Your task to perform on an android device: Search for "asus rog" on target.com, select the first entry, add it to the cart, then select checkout. Image 0: 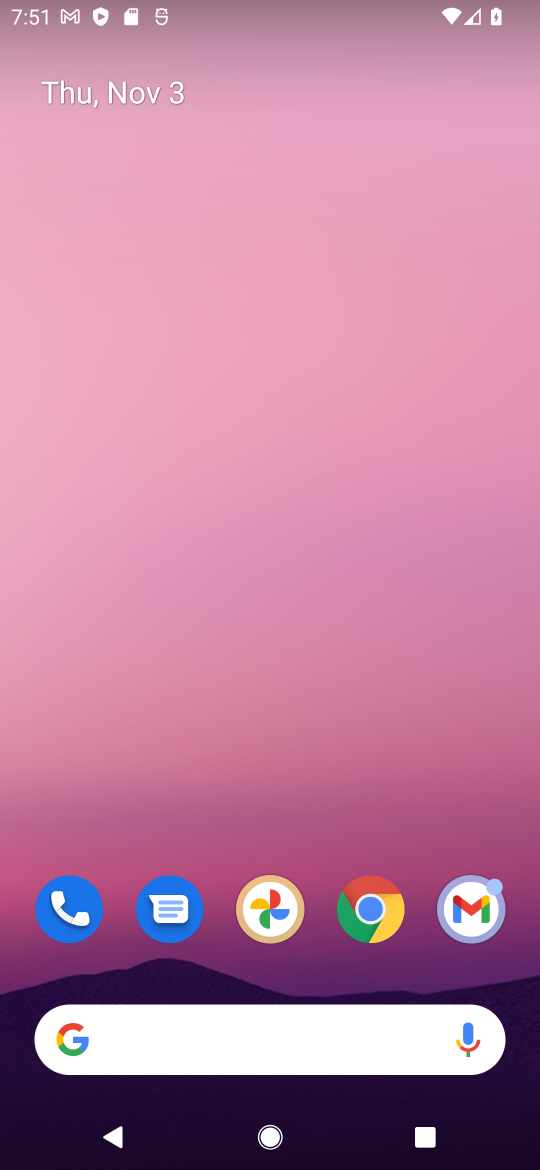
Step 0: drag from (231, 999) to (277, 193)
Your task to perform on an android device: Search for "asus rog" on target.com, select the first entry, add it to the cart, then select checkout. Image 1: 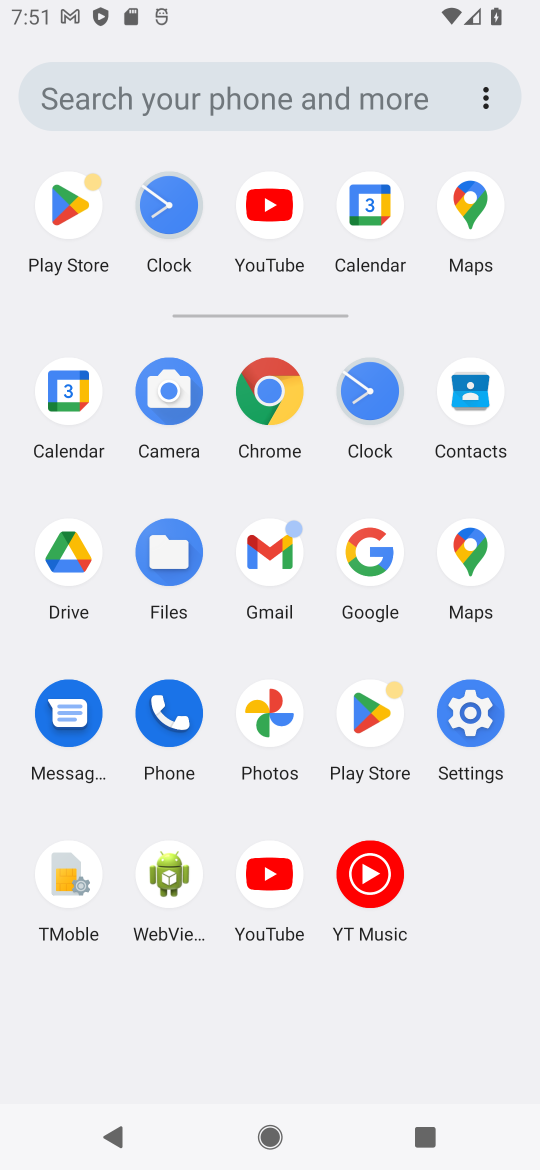
Step 1: click (356, 553)
Your task to perform on an android device: Search for "asus rog" on target.com, select the first entry, add it to the cart, then select checkout. Image 2: 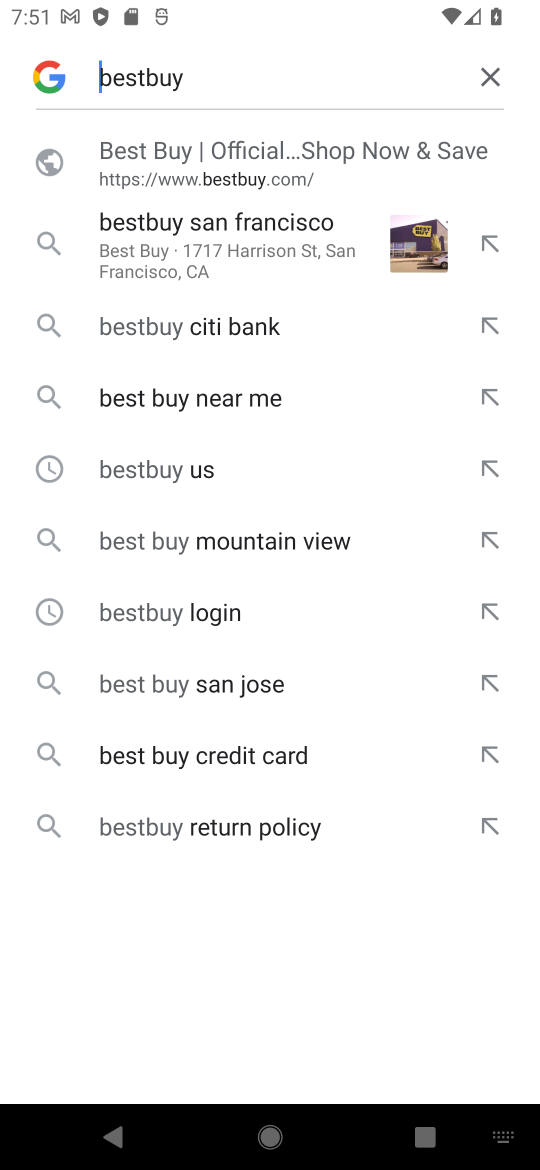
Step 2: click (482, 76)
Your task to perform on an android device: Search for "asus rog" on target.com, select the first entry, add it to the cart, then select checkout. Image 3: 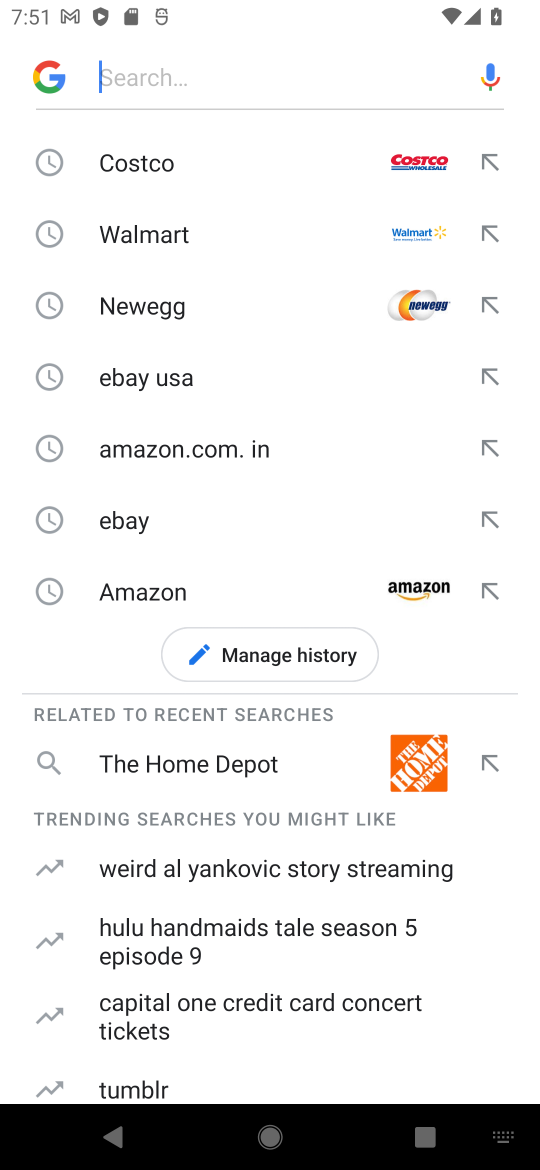
Step 3: click (288, 67)
Your task to perform on an android device: Search for "asus rog" on target.com, select the first entry, add it to the cart, then select checkout. Image 4: 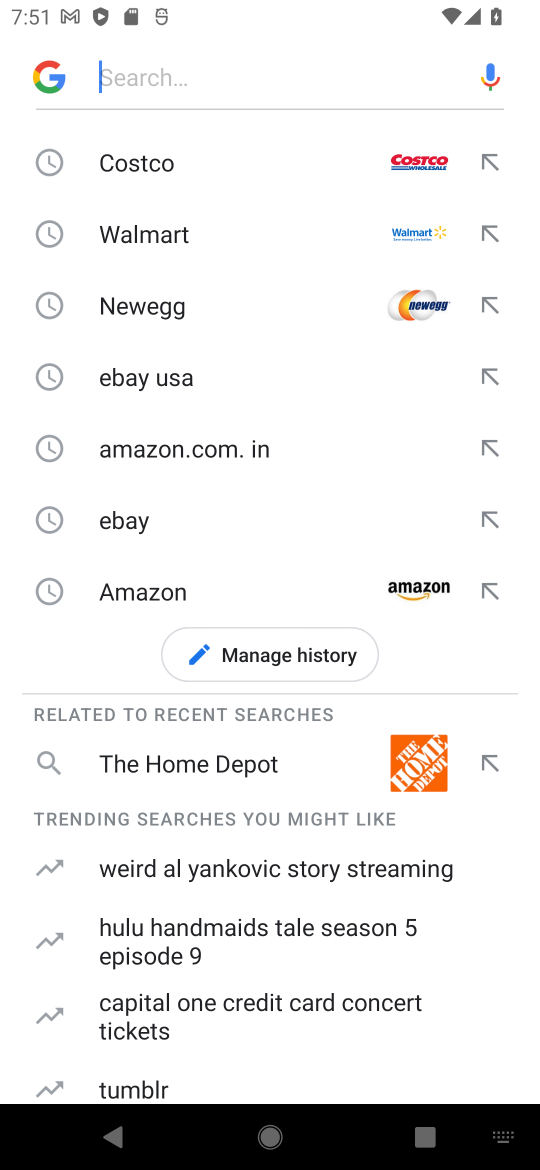
Step 4: type "target "
Your task to perform on an android device: Search for "asus rog" on target.com, select the first entry, add it to the cart, then select checkout. Image 5: 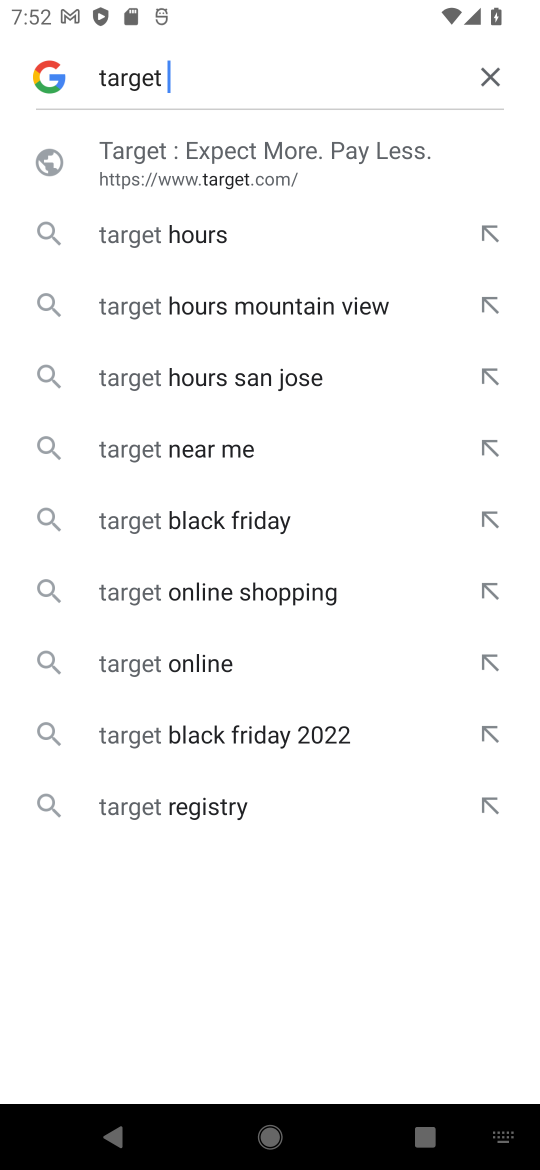
Step 5: click (196, 162)
Your task to perform on an android device: Search for "asus rog" on target.com, select the first entry, add it to the cart, then select checkout. Image 6: 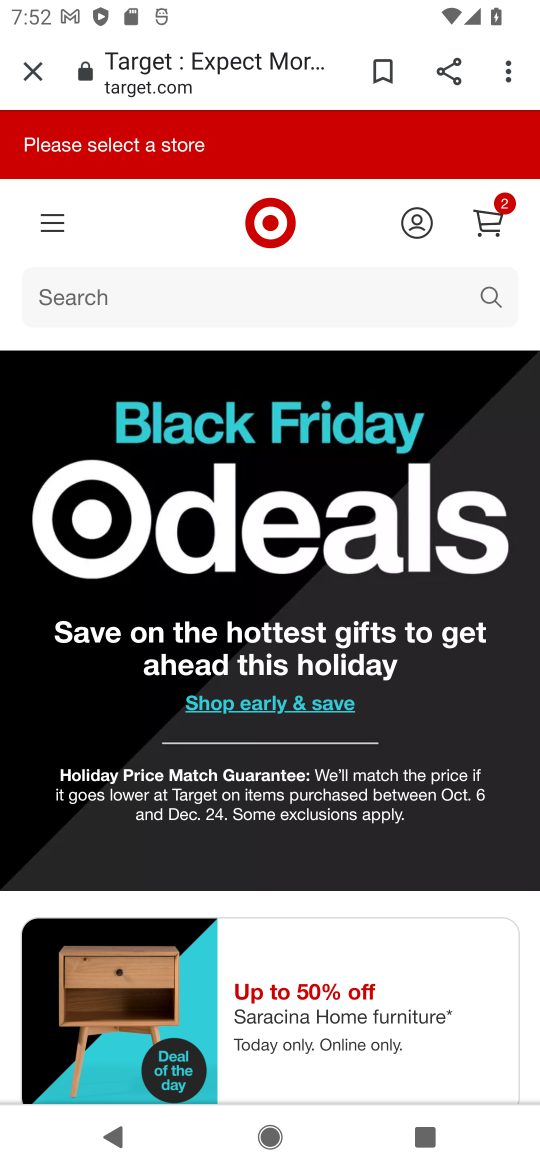
Step 6: click (289, 288)
Your task to perform on an android device: Search for "asus rog" on target.com, select the first entry, add it to the cart, then select checkout. Image 7: 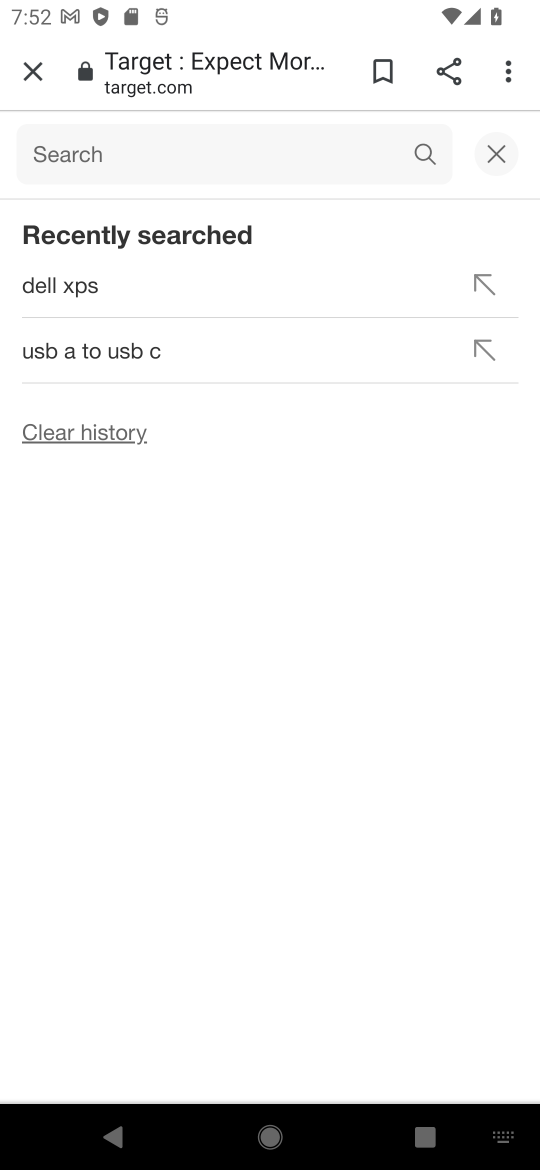
Step 7: type "asus rog "
Your task to perform on an android device: Search for "asus rog" on target.com, select the first entry, add it to the cart, then select checkout. Image 8: 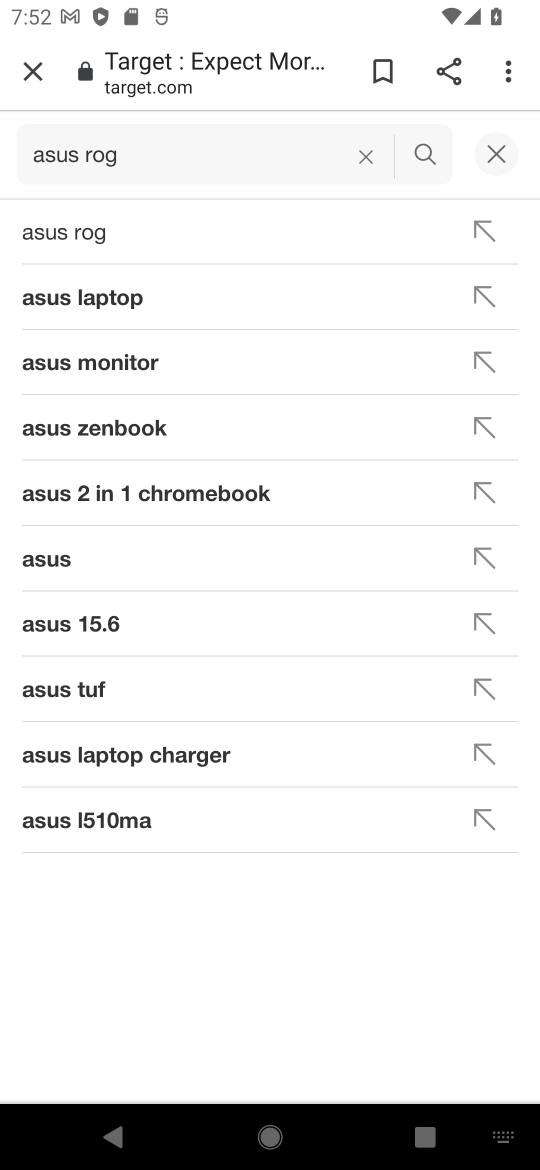
Step 8: click (160, 247)
Your task to perform on an android device: Search for "asus rog" on target.com, select the first entry, add it to the cart, then select checkout. Image 9: 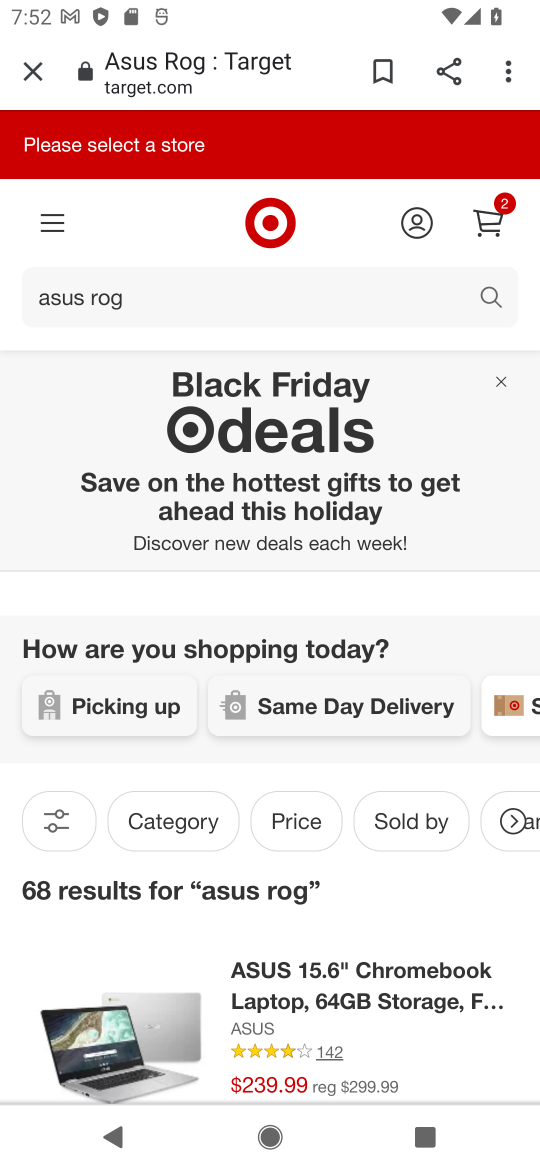
Step 9: click (373, 1028)
Your task to perform on an android device: Search for "asus rog" on target.com, select the first entry, add it to the cart, then select checkout. Image 10: 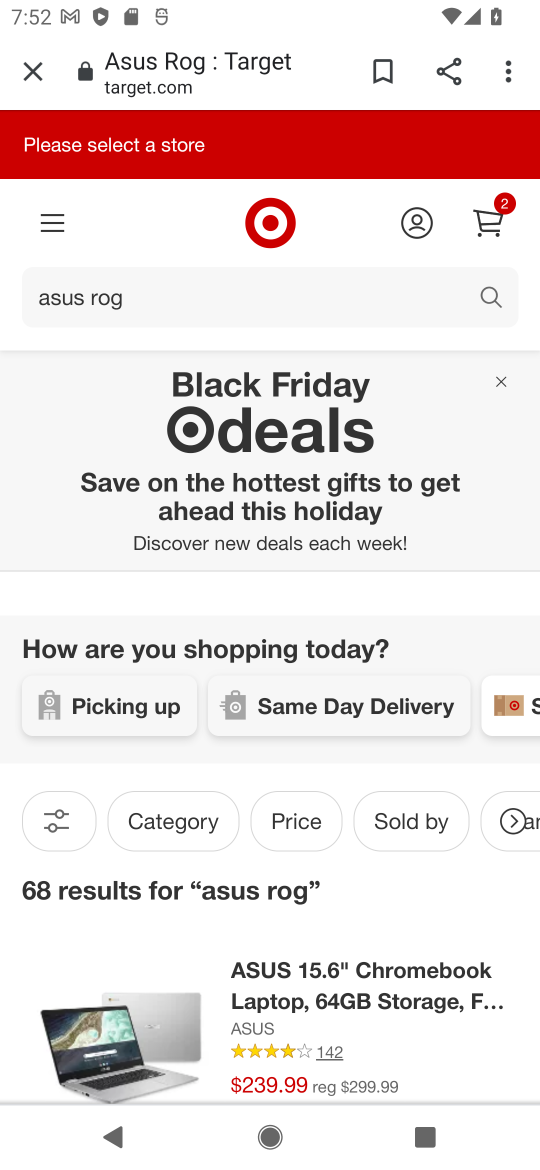
Step 10: click (346, 989)
Your task to perform on an android device: Search for "asus rog" on target.com, select the first entry, add it to the cart, then select checkout. Image 11: 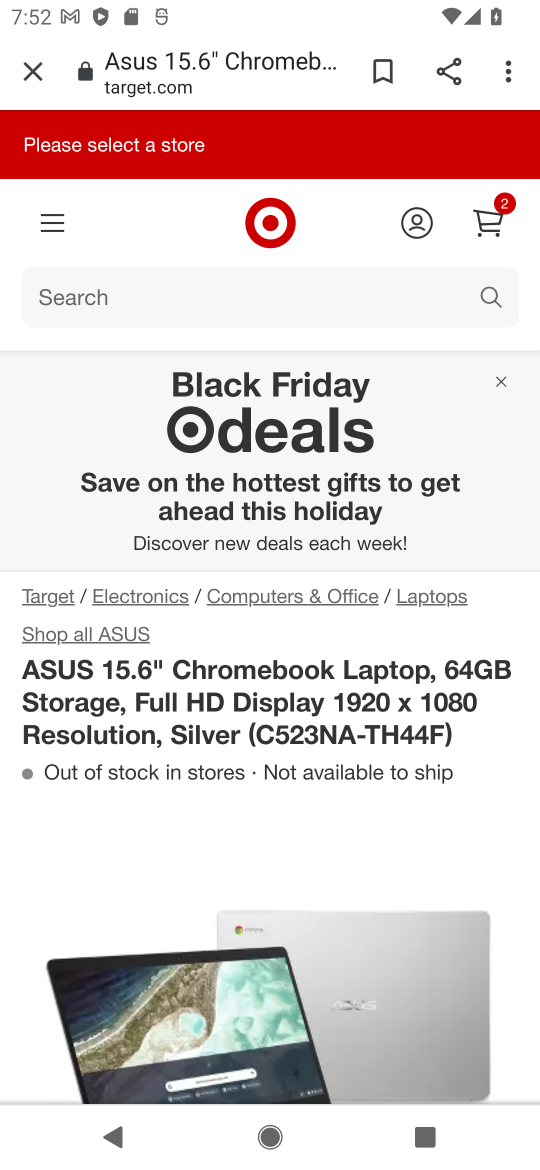
Step 11: drag from (299, 983) to (284, 320)
Your task to perform on an android device: Search for "asus rog" on target.com, select the first entry, add it to the cart, then select checkout. Image 12: 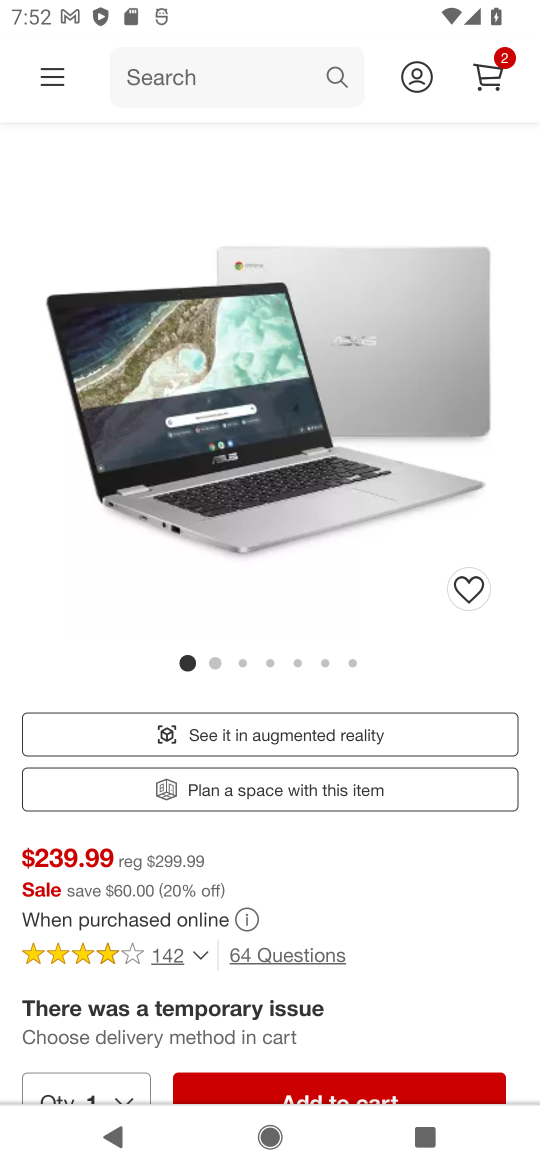
Step 12: drag from (262, 1022) to (304, 538)
Your task to perform on an android device: Search for "asus rog" on target.com, select the first entry, add it to the cart, then select checkout. Image 13: 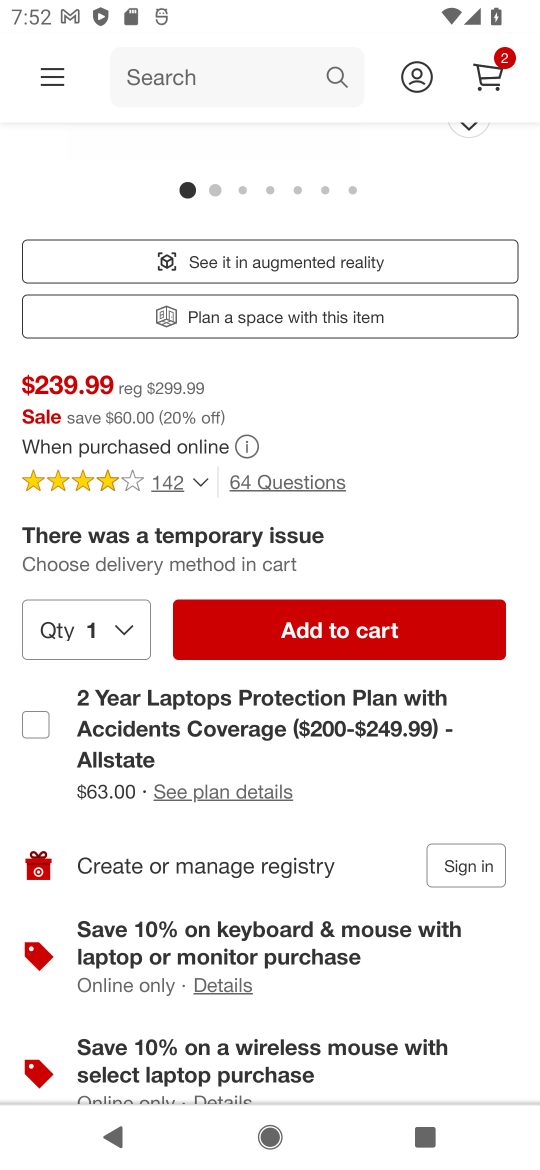
Step 13: click (351, 625)
Your task to perform on an android device: Search for "asus rog" on target.com, select the first entry, add it to the cart, then select checkout. Image 14: 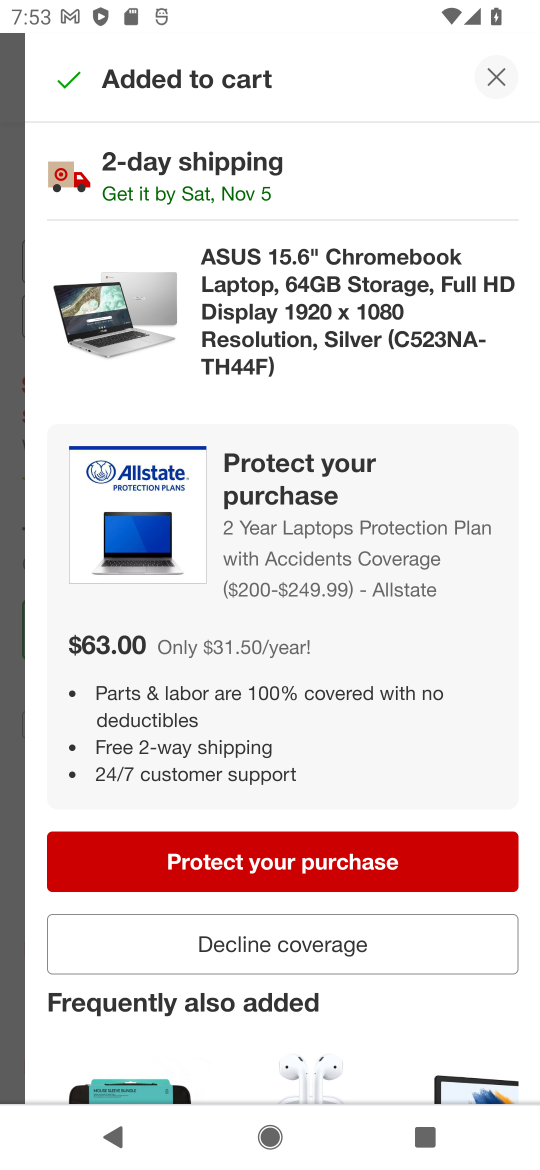
Step 14: task complete